Your task to perform on an android device: Open Google Chrome Image 0: 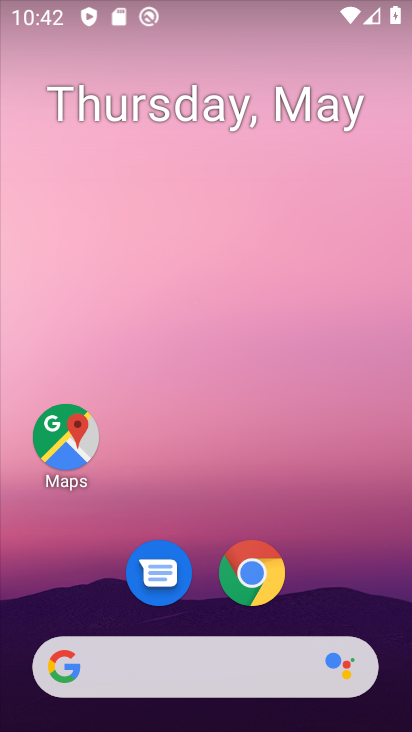
Step 0: click (270, 577)
Your task to perform on an android device: Open Google Chrome Image 1: 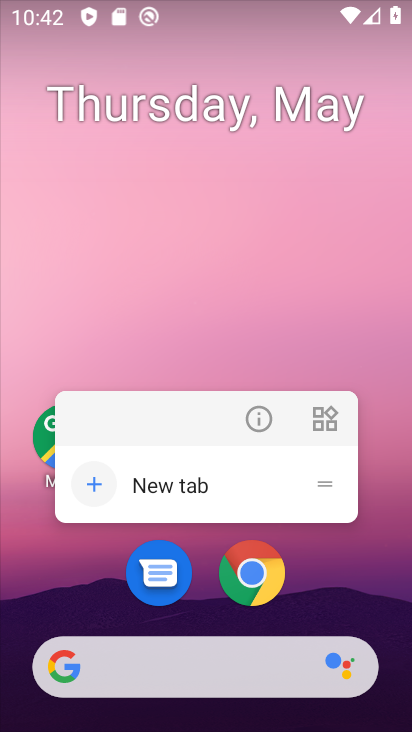
Step 1: click (270, 577)
Your task to perform on an android device: Open Google Chrome Image 2: 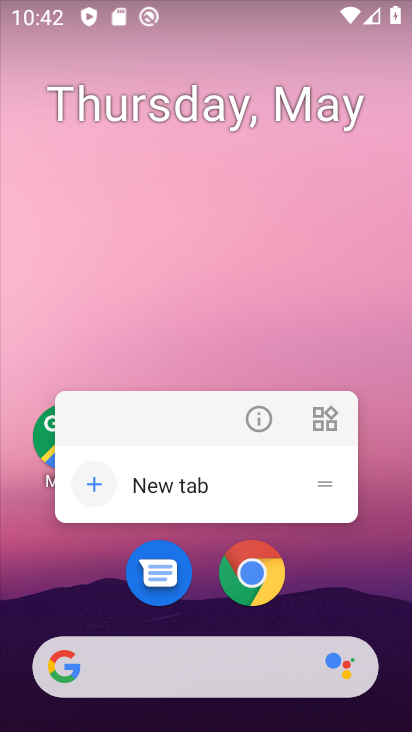
Step 2: click (248, 582)
Your task to perform on an android device: Open Google Chrome Image 3: 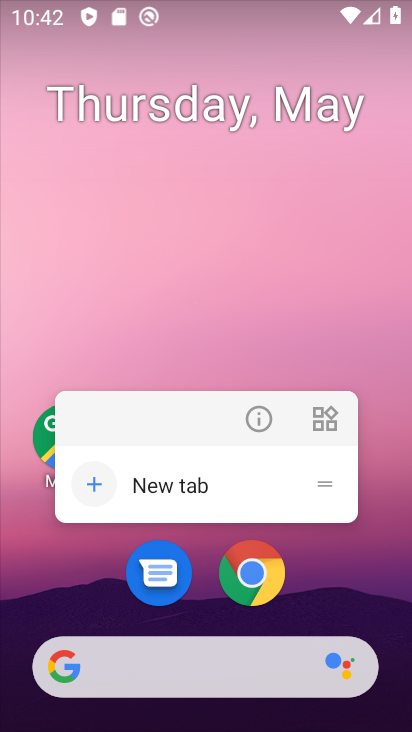
Step 3: click (248, 582)
Your task to perform on an android device: Open Google Chrome Image 4: 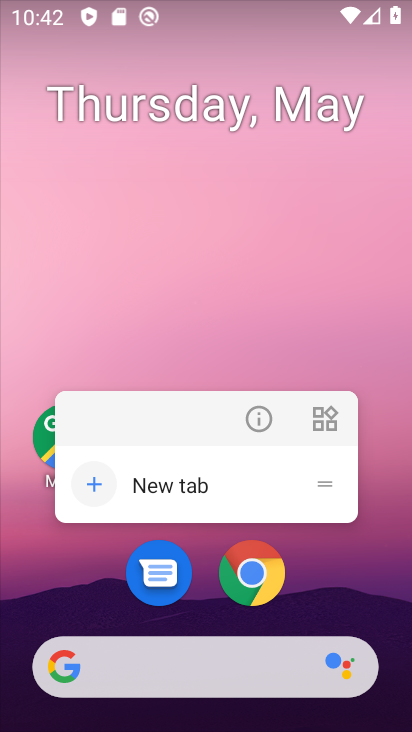
Step 4: click (254, 587)
Your task to perform on an android device: Open Google Chrome Image 5: 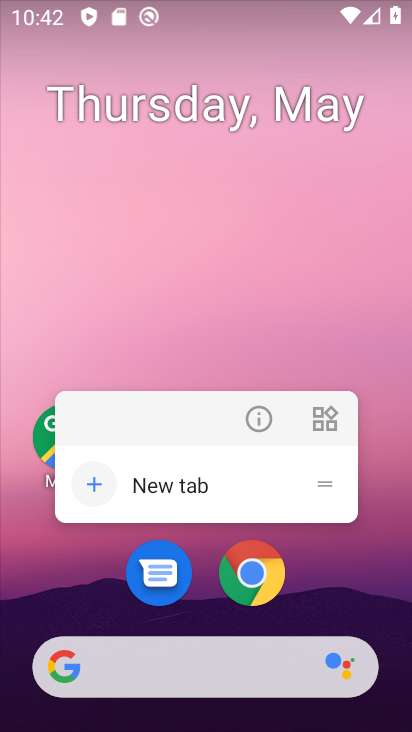
Step 5: click (257, 587)
Your task to perform on an android device: Open Google Chrome Image 6: 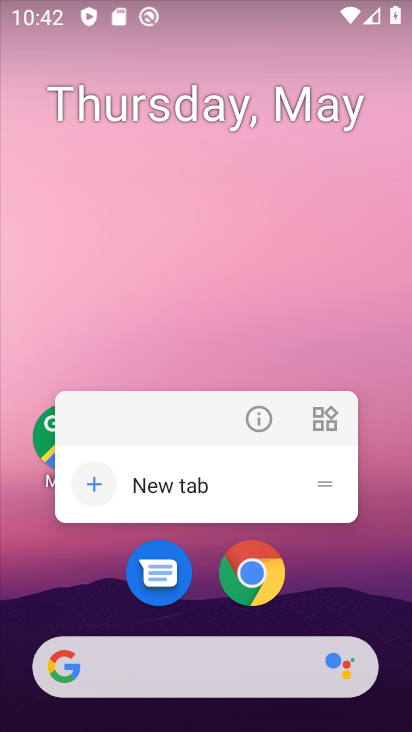
Step 6: click (262, 552)
Your task to perform on an android device: Open Google Chrome Image 7: 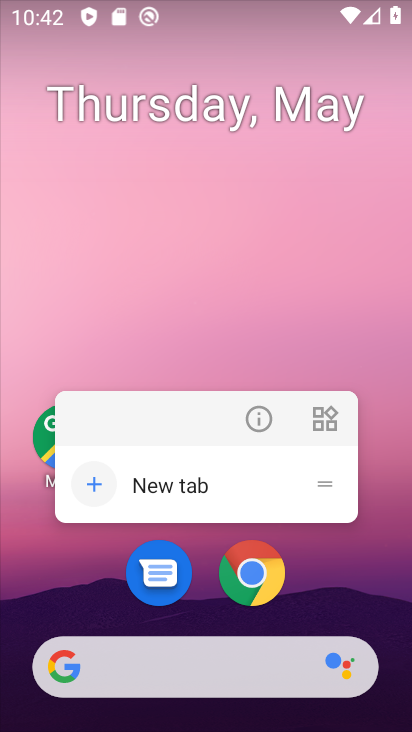
Step 7: click (274, 575)
Your task to perform on an android device: Open Google Chrome Image 8: 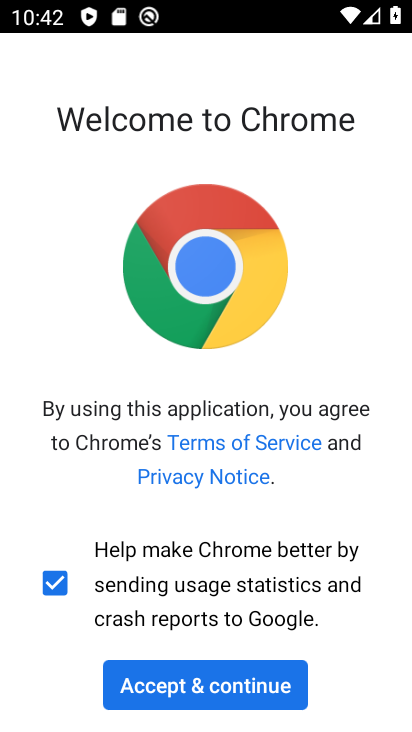
Step 8: click (233, 674)
Your task to perform on an android device: Open Google Chrome Image 9: 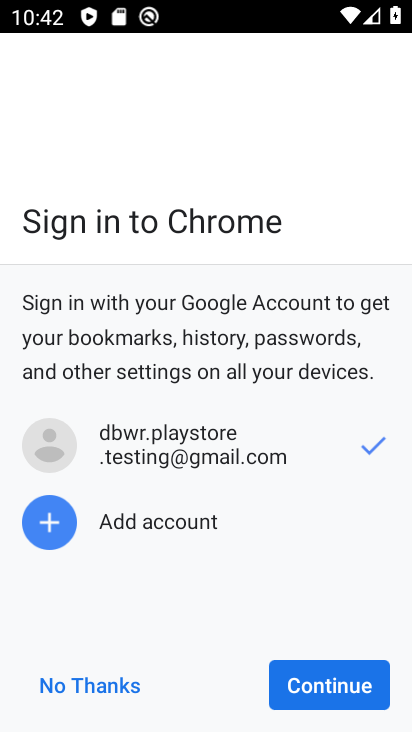
Step 9: click (341, 690)
Your task to perform on an android device: Open Google Chrome Image 10: 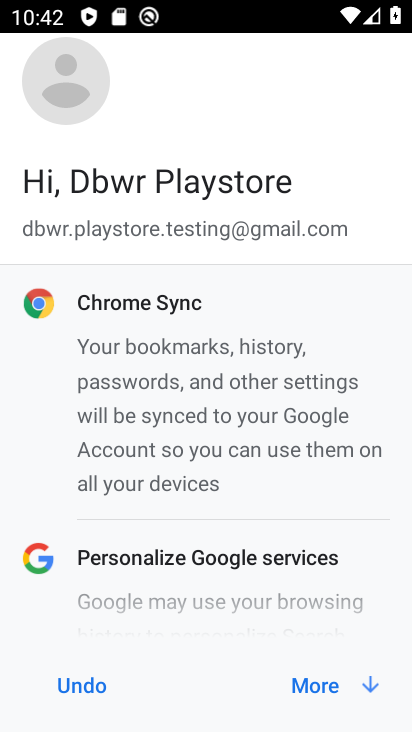
Step 10: click (347, 690)
Your task to perform on an android device: Open Google Chrome Image 11: 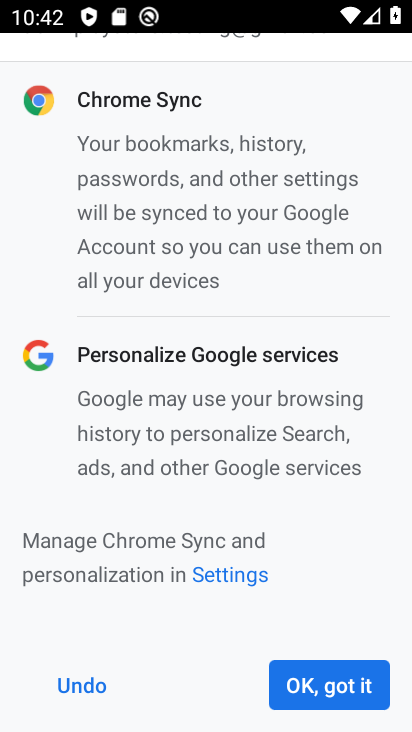
Step 11: click (347, 690)
Your task to perform on an android device: Open Google Chrome Image 12: 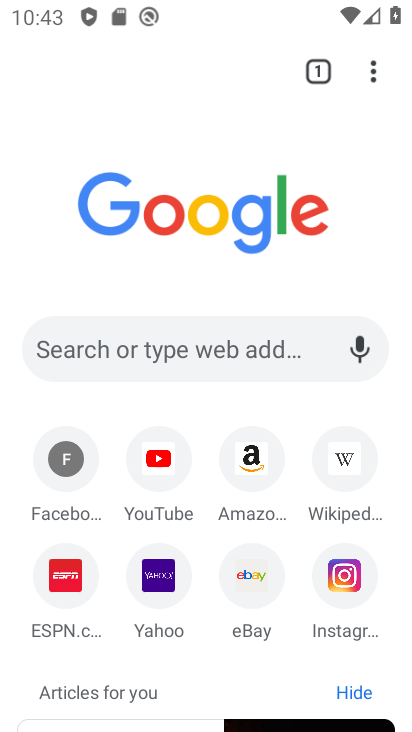
Step 12: task complete